Your task to perform on an android device: check battery use Image 0: 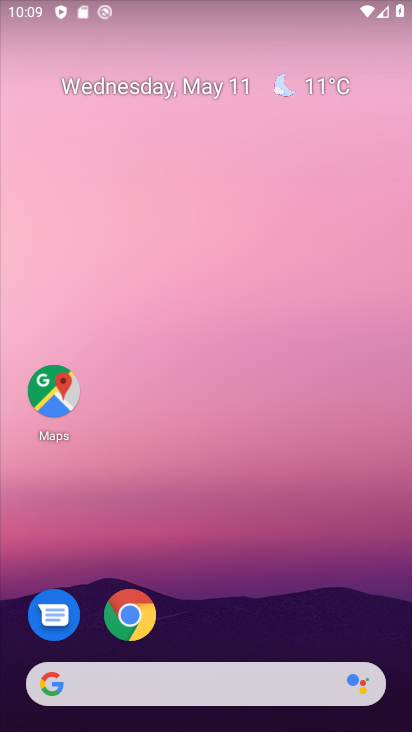
Step 0: drag from (273, 565) to (183, 66)
Your task to perform on an android device: check battery use Image 1: 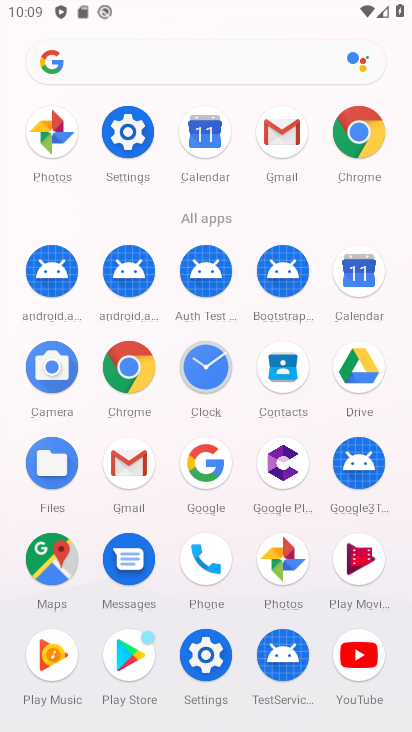
Step 1: click (118, 136)
Your task to perform on an android device: check battery use Image 2: 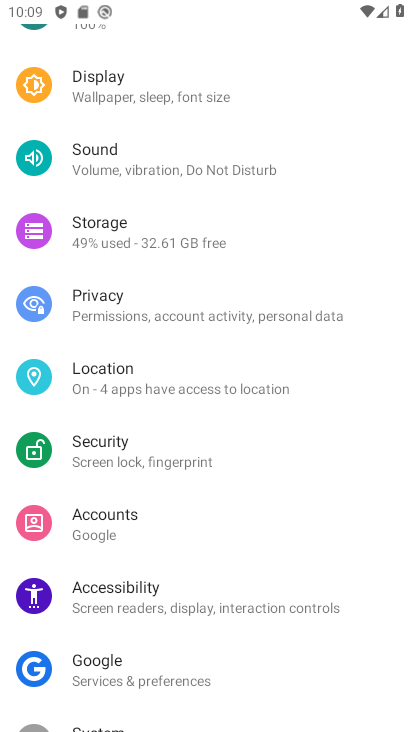
Step 2: drag from (133, 203) to (186, 514)
Your task to perform on an android device: check battery use Image 3: 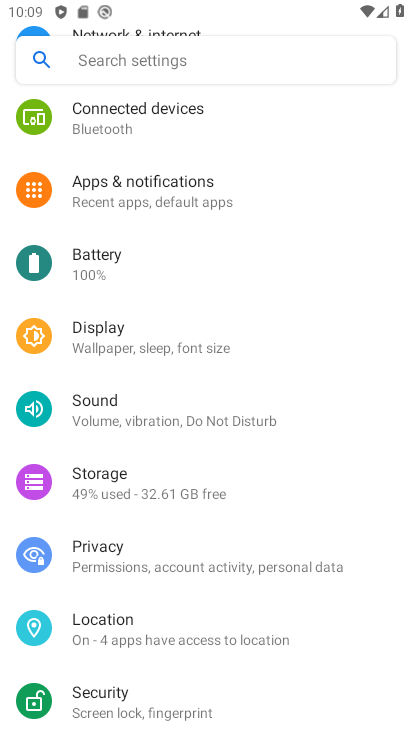
Step 3: click (104, 284)
Your task to perform on an android device: check battery use Image 4: 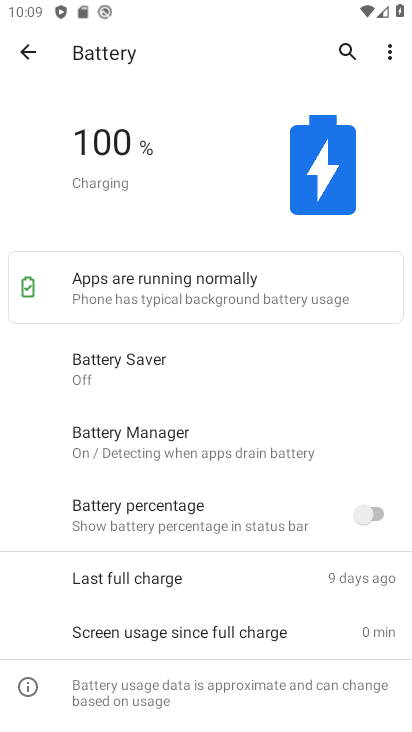
Step 4: task complete